Your task to perform on an android device: check the backup settings in the google photos Image 0: 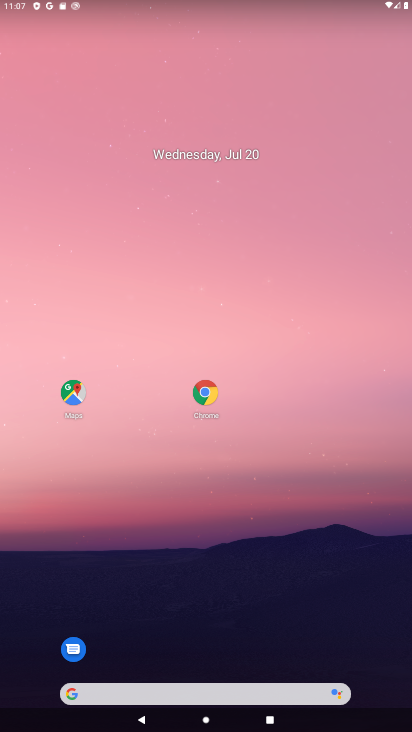
Step 0: drag from (319, 625) to (319, 101)
Your task to perform on an android device: check the backup settings in the google photos Image 1: 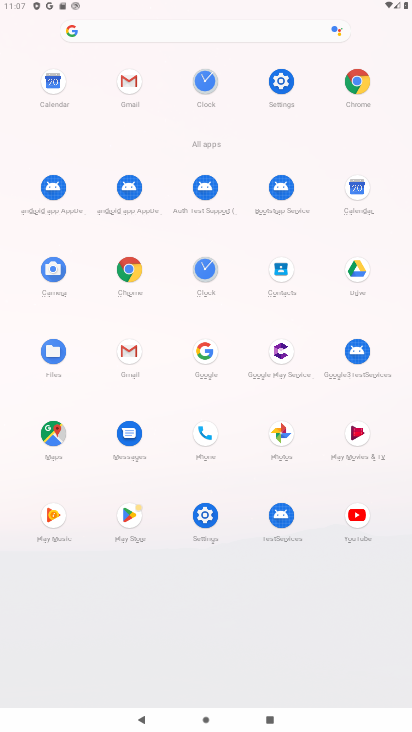
Step 1: click (281, 428)
Your task to perform on an android device: check the backup settings in the google photos Image 2: 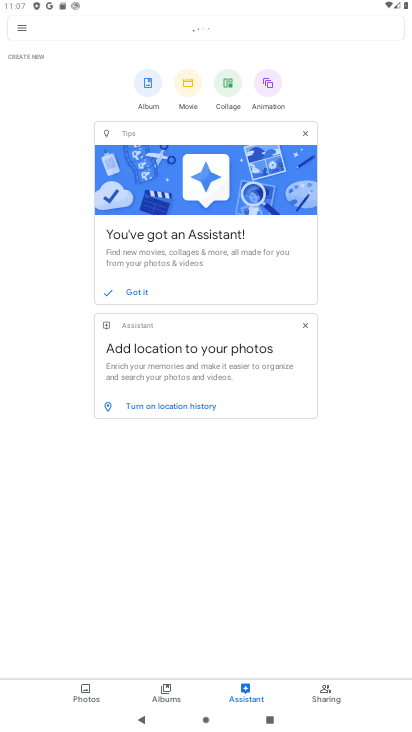
Step 2: click (19, 23)
Your task to perform on an android device: check the backup settings in the google photos Image 3: 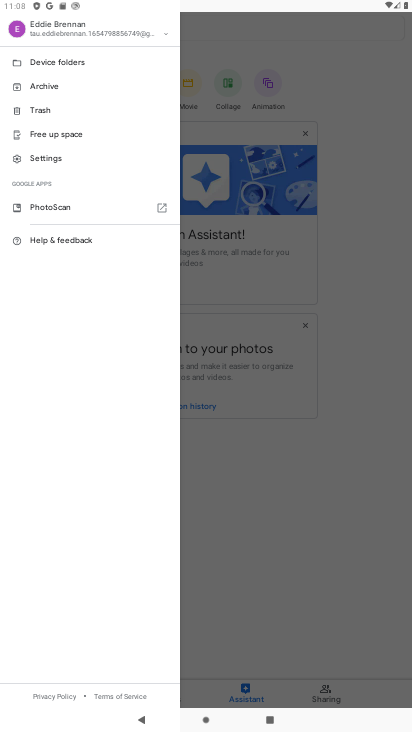
Step 3: click (48, 152)
Your task to perform on an android device: check the backup settings in the google photos Image 4: 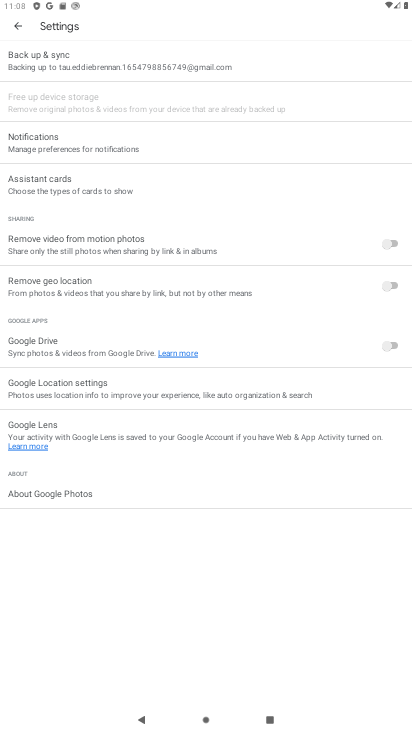
Step 4: click (78, 65)
Your task to perform on an android device: check the backup settings in the google photos Image 5: 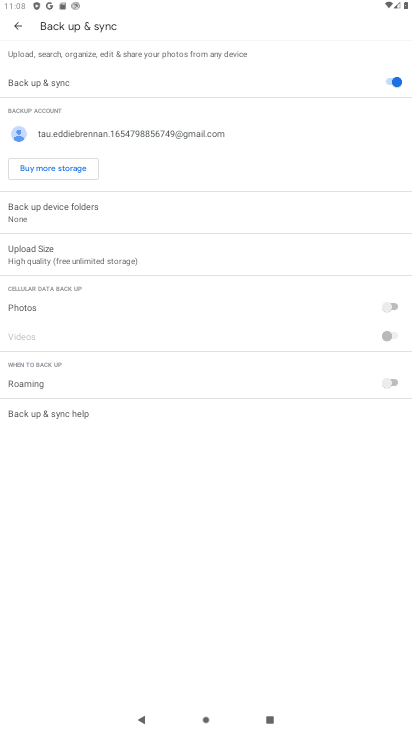
Step 5: task complete